Your task to perform on an android device: turn notification dots on Image 0: 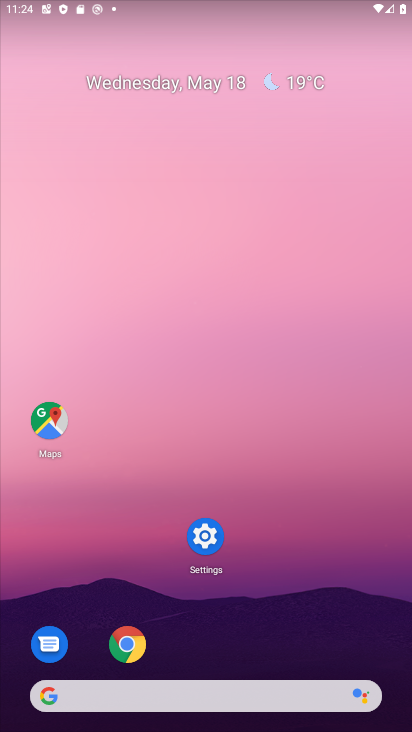
Step 0: drag from (351, 546) to (317, 153)
Your task to perform on an android device: turn notification dots on Image 1: 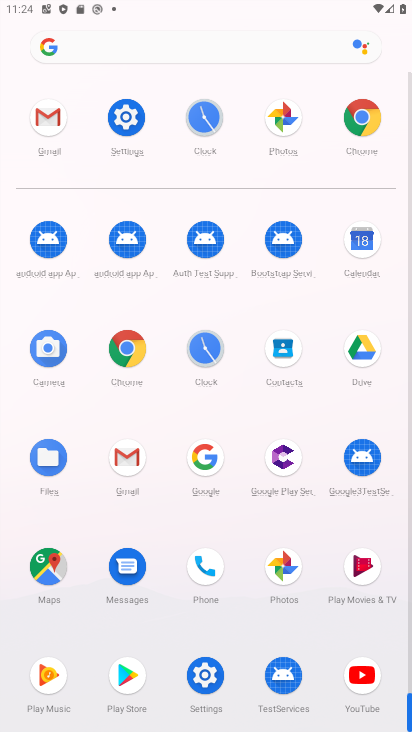
Step 1: click (130, 115)
Your task to perform on an android device: turn notification dots on Image 2: 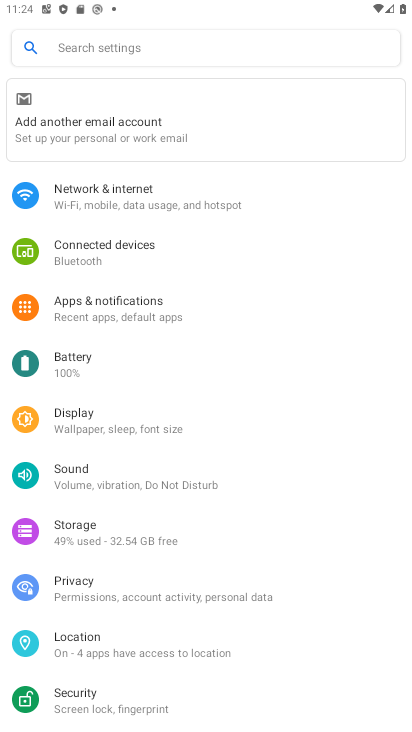
Step 2: click (138, 304)
Your task to perform on an android device: turn notification dots on Image 3: 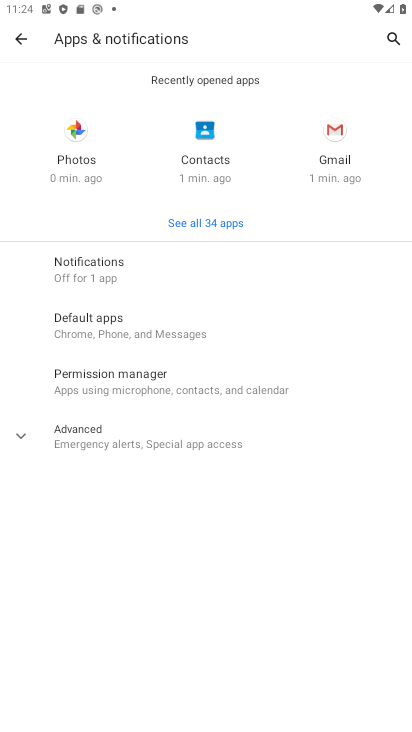
Step 3: click (115, 281)
Your task to perform on an android device: turn notification dots on Image 4: 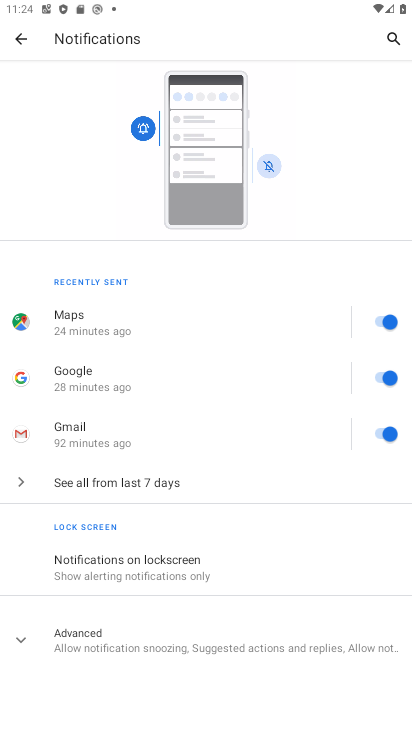
Step 4: click (127, 633)
Your task to perform on an android device: turn notification dots on Image 5: 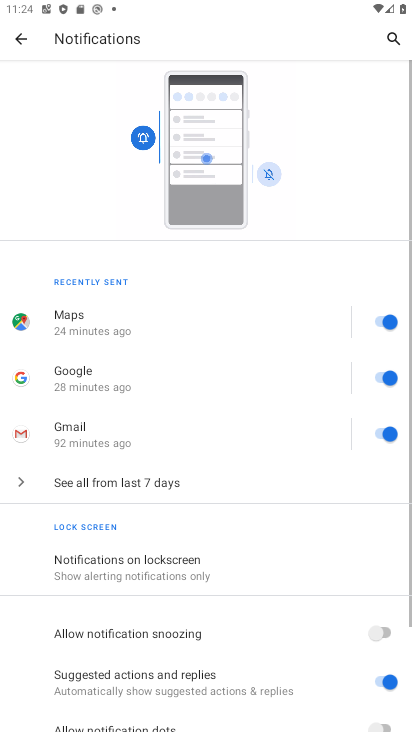
Step 5: drag from (271, 599) to (332, 266)
Your task to perform on an android device: turn notification dots on Image 6: 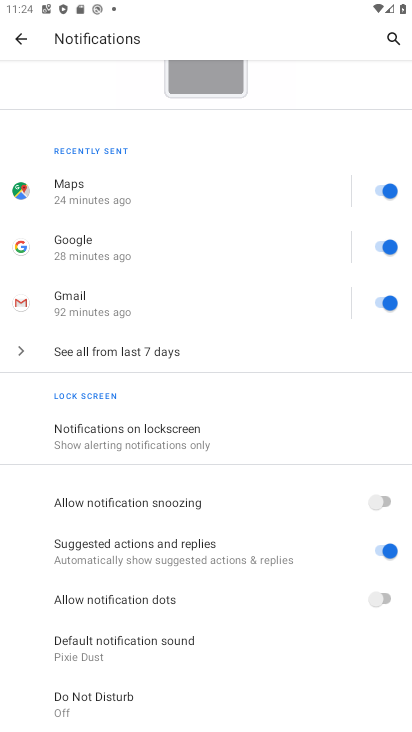
Step 6: click (371, 597)
Your task to perform on an android device: turn notification dots on Image 7: 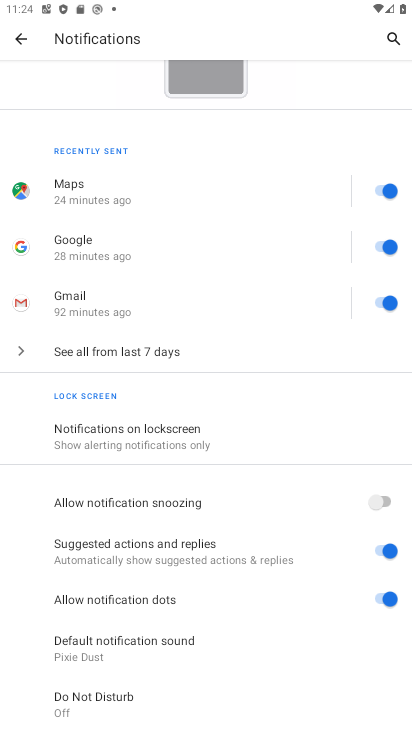
Step 7: task complete